Your task to perform on an android device: Empty the shopping cart on target. Add "asus rog" to the cart on target Image 0: 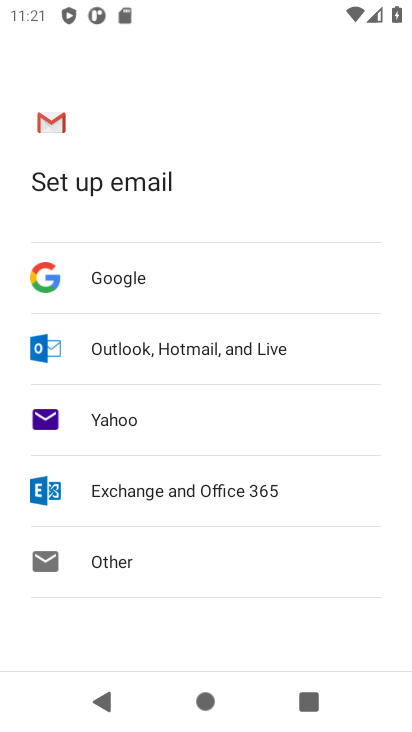
Step 0: press home button
Your task to perform on an android device: Empty the shopping cart on target. Add "asus rog" to the cart on target Image 1: 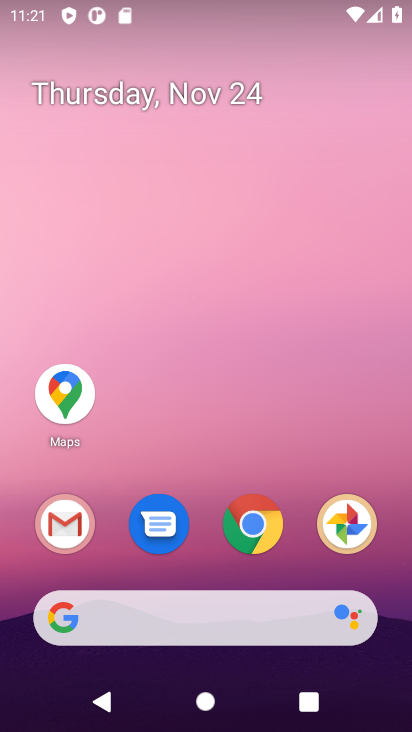
Step 1: click (250, 550)
Your task to perform on an android device: Empty the shopping cart on target. Add "asus rog" to the cart on target Image 2: 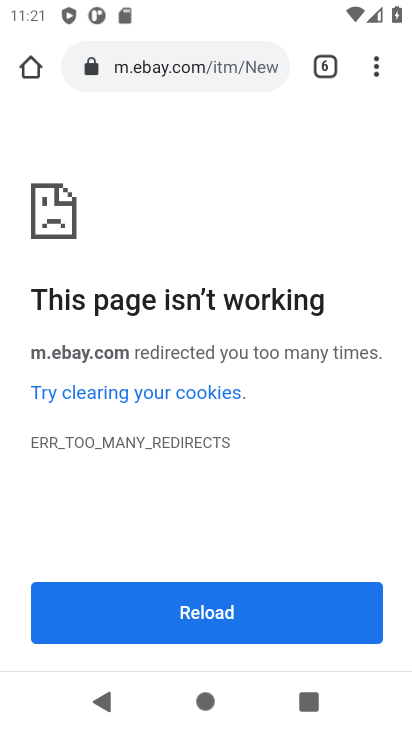
Step 2: click (156, 64)
Your task to perform on an android device: Empty the shopping cart on target. Add "asus rog" to the cart on target Image 3: 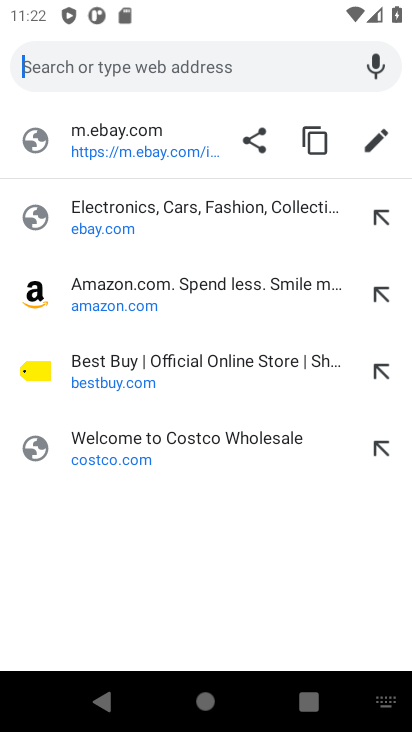
Step 3: type "target.com"
Your task to perform on an android device: Empty the shopping cart on target. Add "asus rog" to the cart on target Image 4: 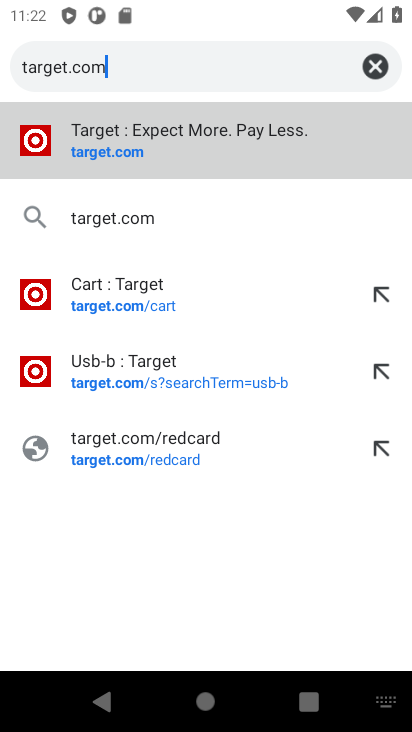
Step 4: click (97, 155)
Your task to perform on an android device: Empty the shopping cart on target. Add "asus rog" to the cart on target Image 5: 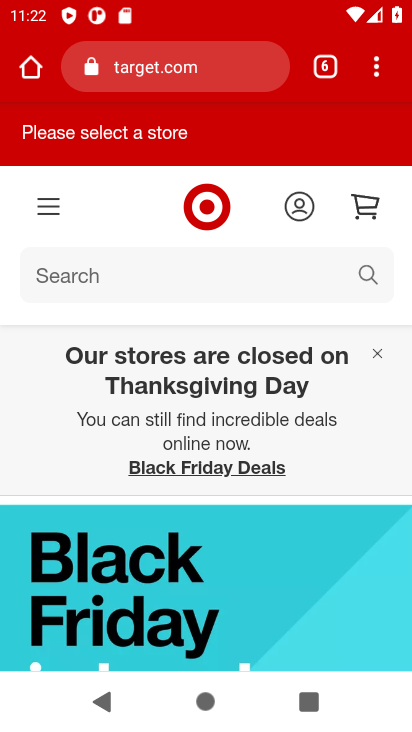
Step 5: click (367, 207)
Your task to perform on an android device: Empty the shopping cart on target. Add "asus rog" to the cart on target Image 6: 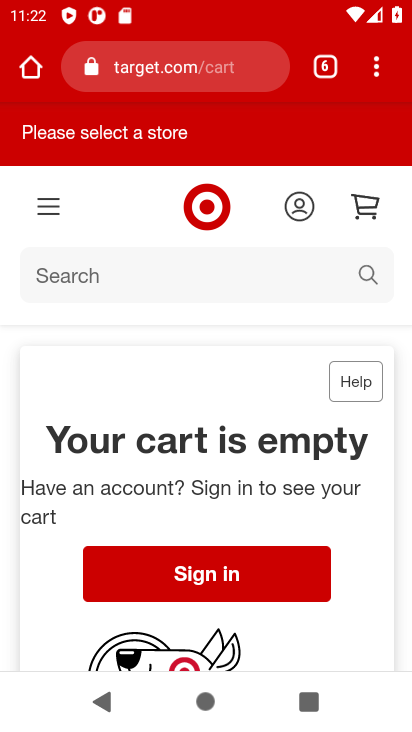
Step 6: drag from (186, 529) to (201, 371)
Your task to perform on an android device: Empty the shopping cart on target. Add "asus rog" to the cart on target Image 7: 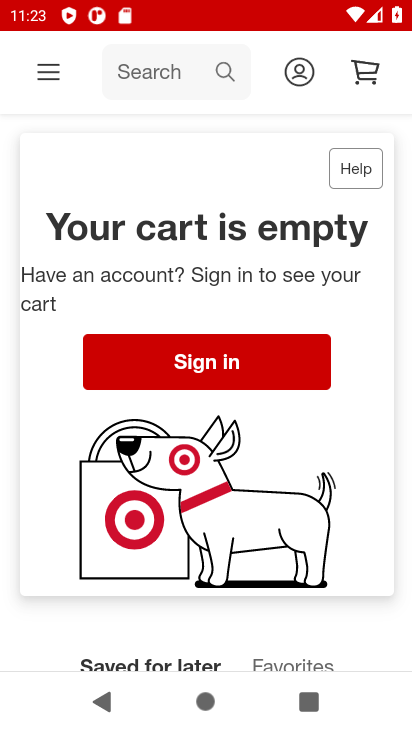
Step 7: drag from (339, 356) to (339, 573)
Your task to perform on an android device: Empty the shopping cart on target. Add "asus rog" to the cart on target Image 8: 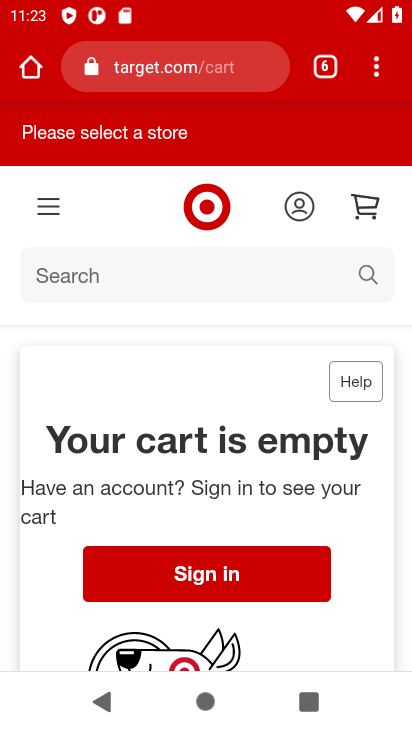
Step 8: click (362, 275)
Your task to perform on an android device: Empty the shopping cart on target. Add "asus rog" to the cart on target Image 9: 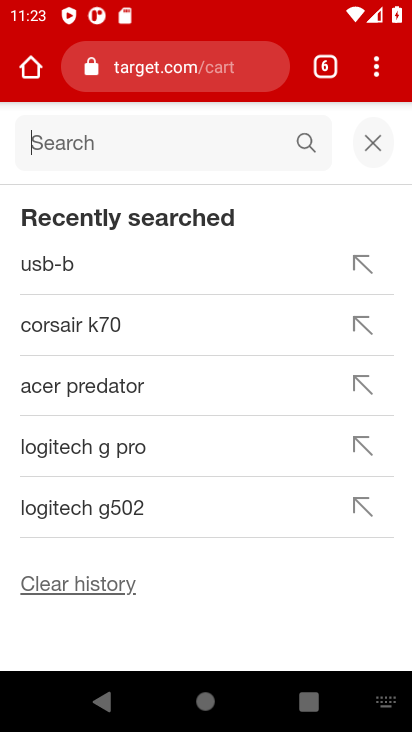
Step 9: type "asus rog"
Your task to perform on an android device: Empty the shopping cart on target. Add "asus rog" to the cart on target Image 10: 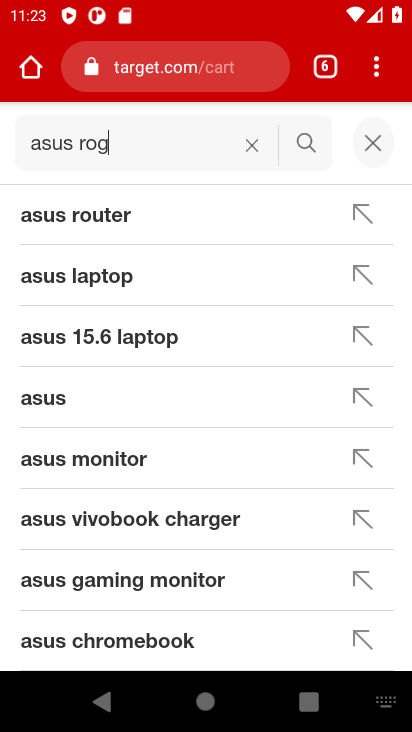
Step 10: click (302, 139)
Your task to perform on an android device: Empty the shopping cart on target. Add "asus rog" to the cart on target Image 11: 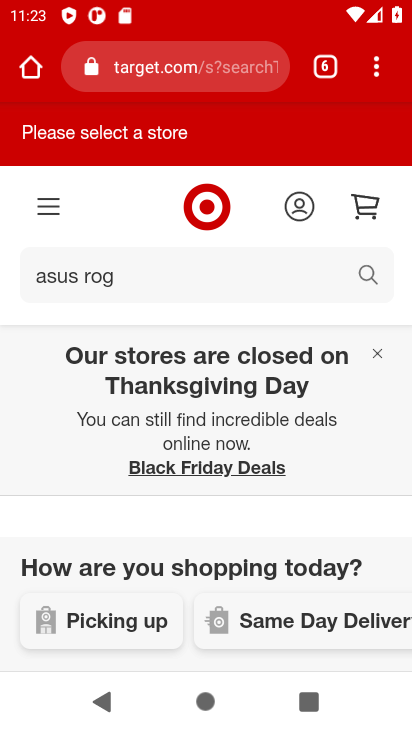
Step 11: drag from (206, 509) to (198, 212)
Your task to perform on an android device: Empty the shopping cart on target. Add "asus rog" to the cart on target Image 12: 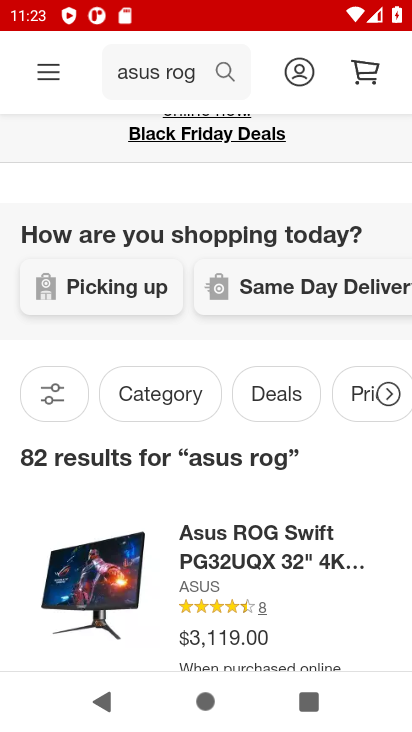
Step 12: drag from (163, 484) to (156, 230)
Your task to perform on an android device: Empty the shopping cart on target. Add "asus rog" to the cart on target Image 13: 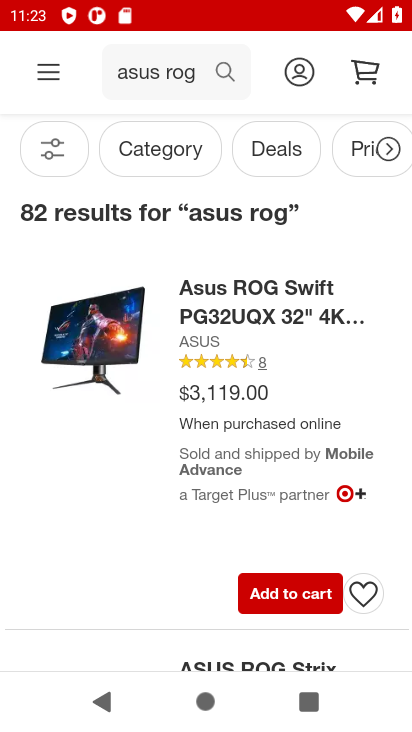
Step 13: click (291, 591)
Your task to perform on an android device: Empty the shopping cart on target. Add "asus rog" to the cart on target Image 14: 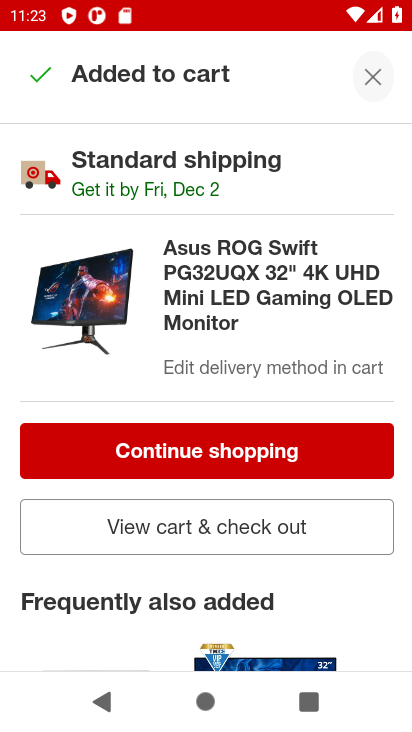
Step 14: task complete